Your task to perform on an android device: What is the recent news? Image 0: 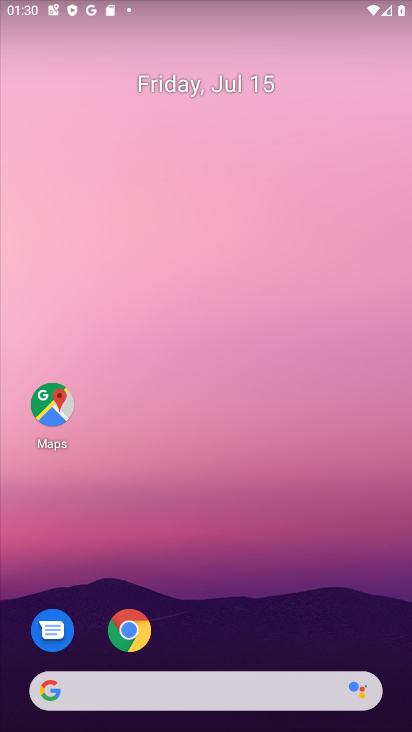
Step 0: click (217, 672)
Your task to perform on an android device: What is the recent news? Image 1: 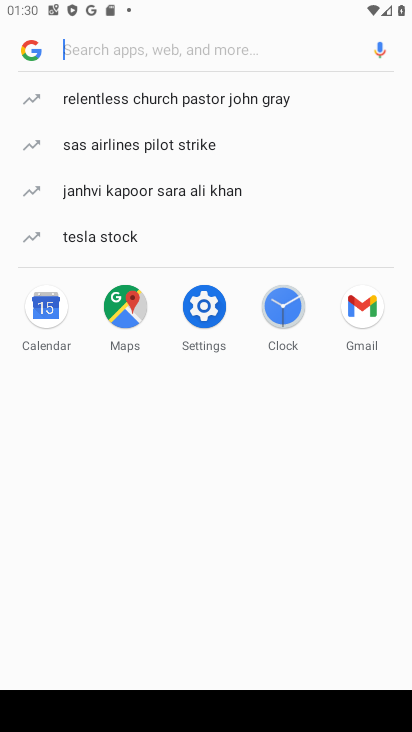
Step 1: type "news"
Your task to perform on an android device: What is the recent news? Image 2: 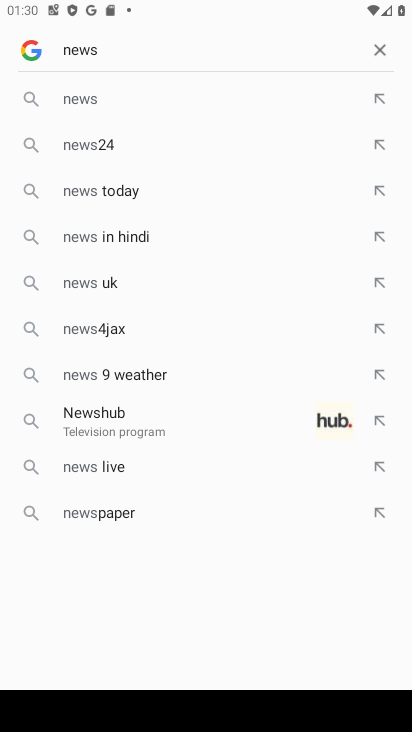
Step 2: click (185, 90)
Your task to perform on an android device: What is the recent news? Image 3: 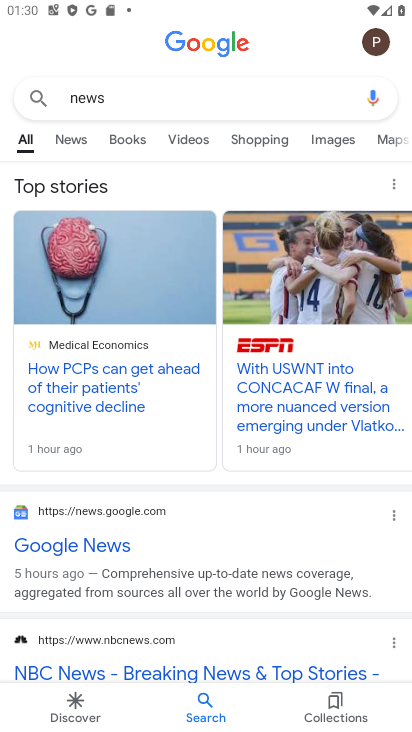
Step 3: task complete